Your task to perform on an android device: Go to eBay Image 0: 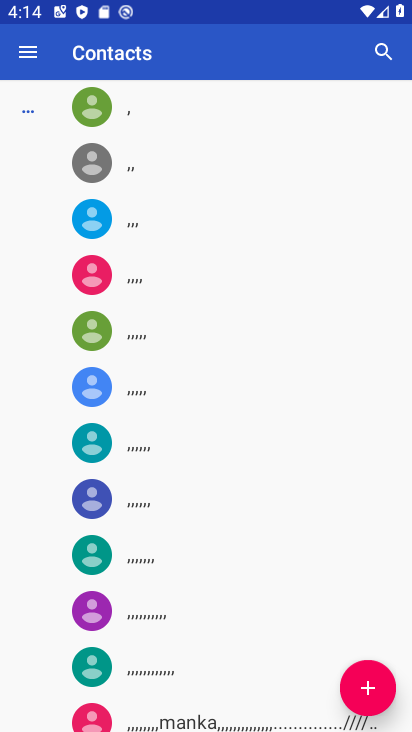
Step 0: press back button
Your task to perform on an android device: Go to eBay Image 1: 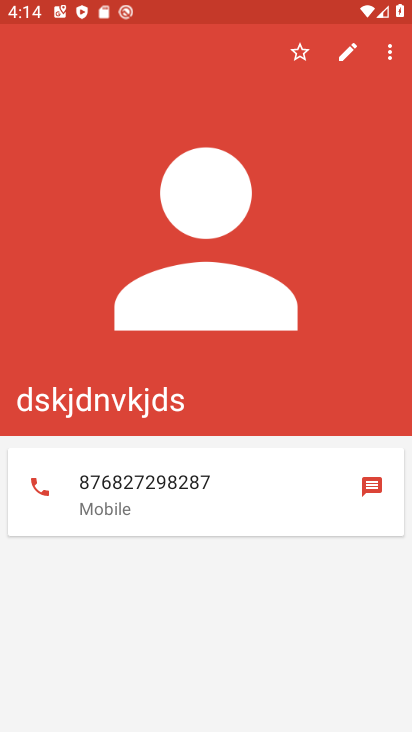
Step 1: press home button
Your task to perform on an android device: Go to eBay Image 2: 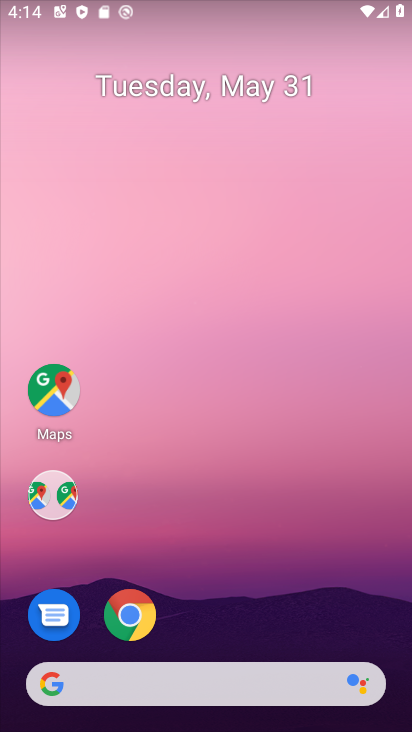
Step 2: drag from (304, 708) to (259, 248)
Your task to perform on an android device: Go to eBay Image 3: 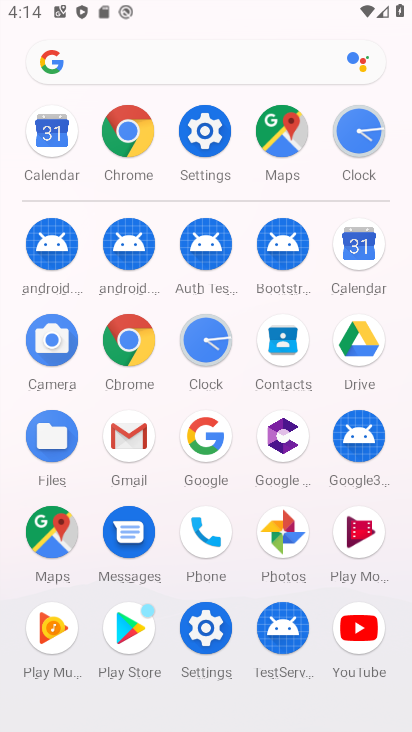
Step 3: click (134, 126)
Your task to perform on an android device: Go to eBay Image 4: 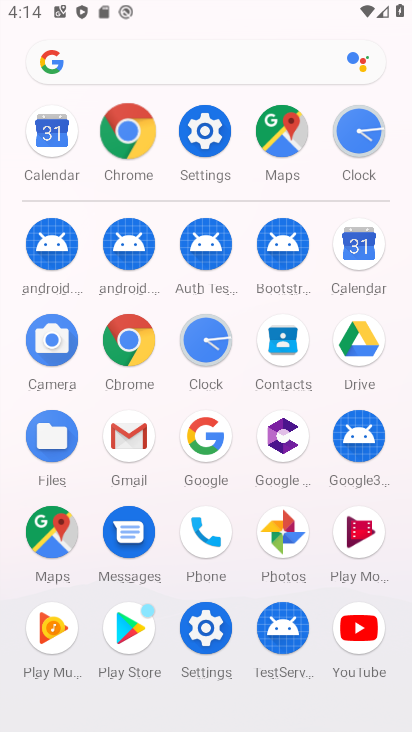
Step 4: click (128, 138)
Your task to perform on an android device: Go to eBay Image 5: 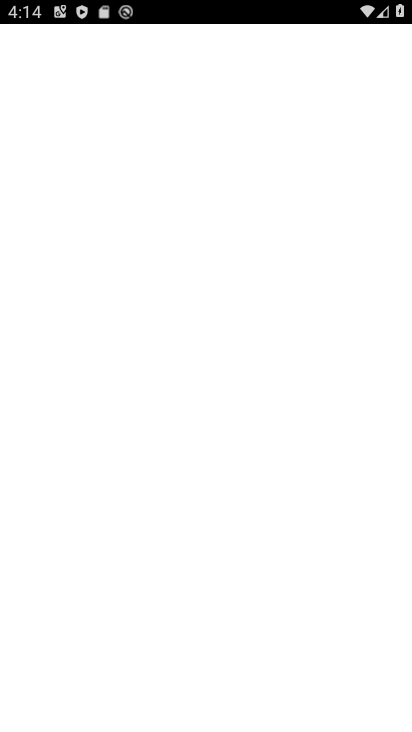
Step 5: click (128, 138)
Your task to perform on an android device: Go to eBay Image 6: 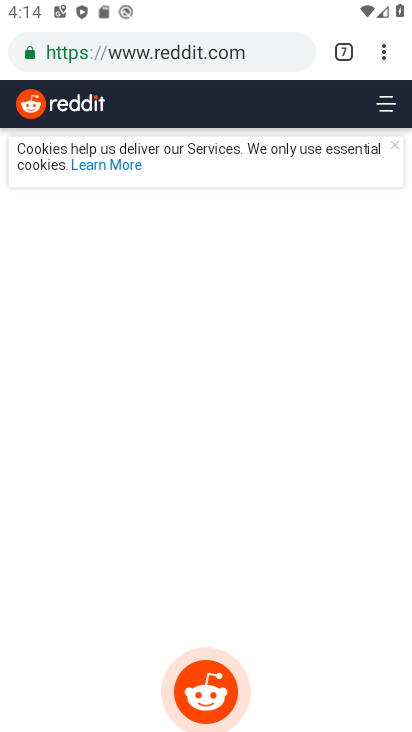
Step 6: drag from (380, 53) to (196, 103)
Your task to perform on an android device: Go to eBay Image 7: 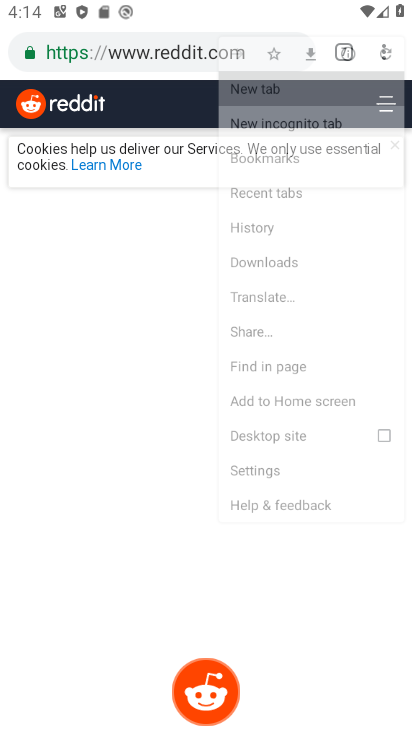
Step 7: click (196, 103)
Your task to perform on an android device: Go to eBay Image 8: 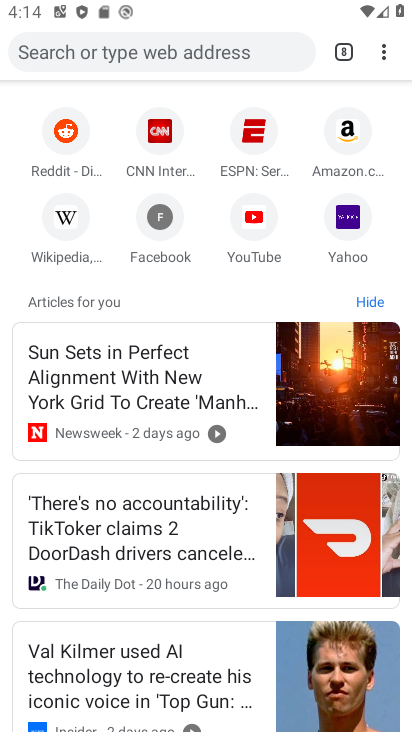
Step 8: drag from (386, 52) to (189, 106)
Your task to perform on an android device: Go to eBay Image 9: 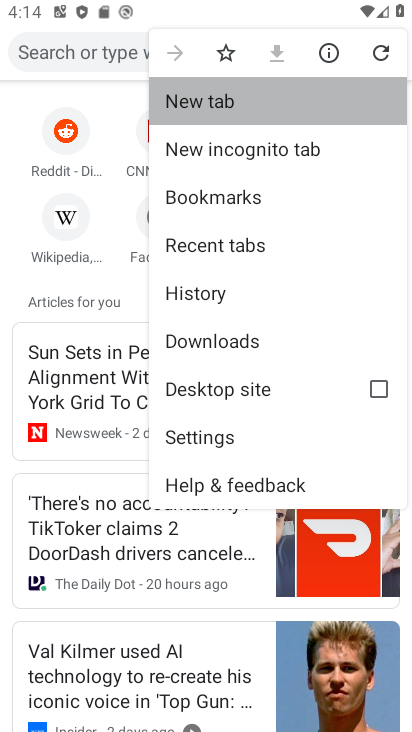
Step 9: click (192, 102)
Your task to perform on an android device: Go to eBay Image 10: 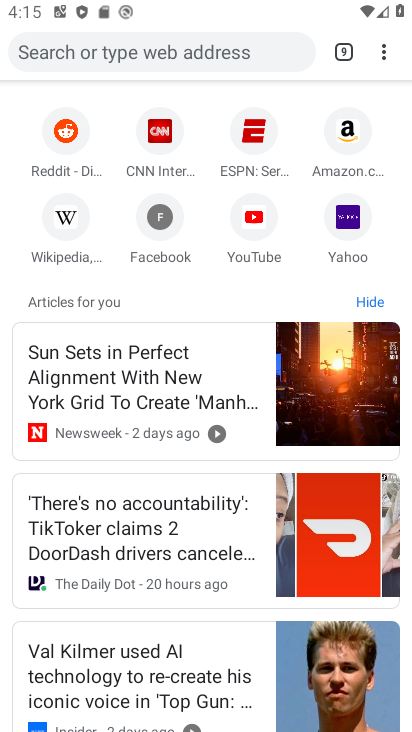
Step 10: click (70, 63)
Your task to perform on an android device: Go to eBay Image 11: 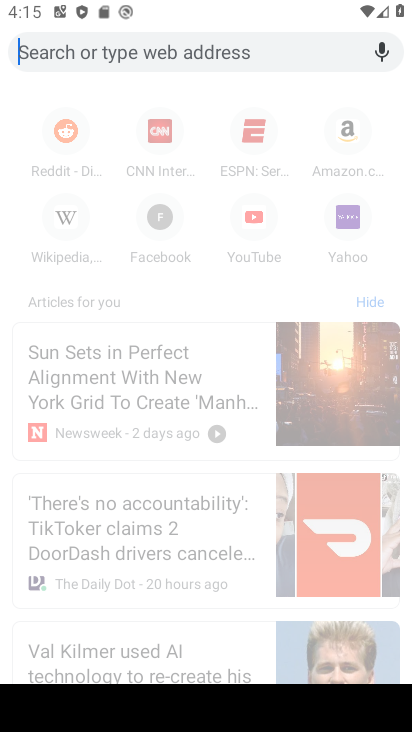
Step 11: type "ebay.com"
Your task to perform on an android device: Go to eBay Image 12: 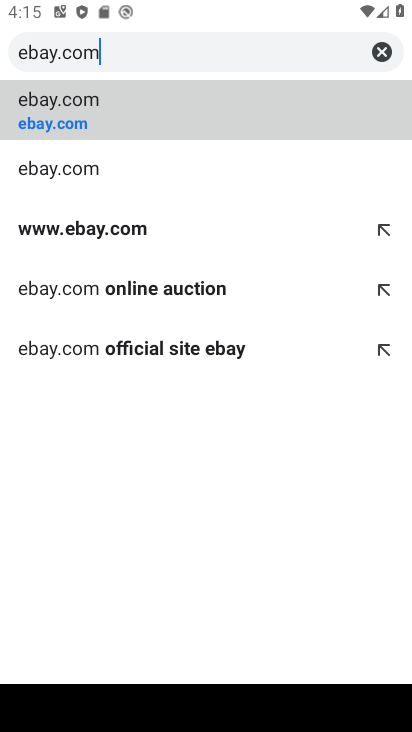
Step 12: click (39, 118)
Your task to perform on an android device: Go to eBay Image 13: 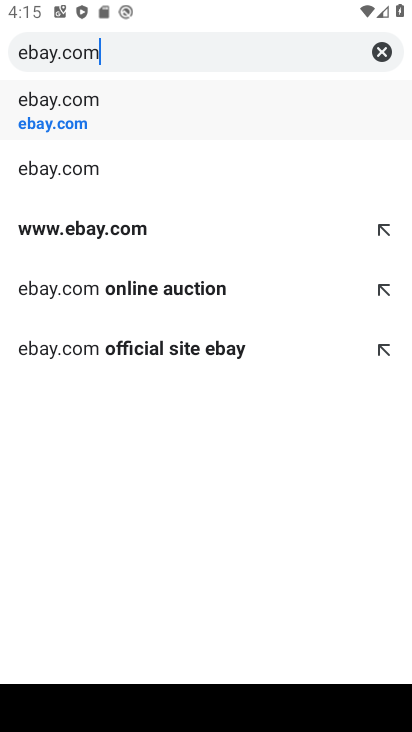
Step 13: click (41, 113)
Your task to perform on an android device: Go to eBay Image 14: 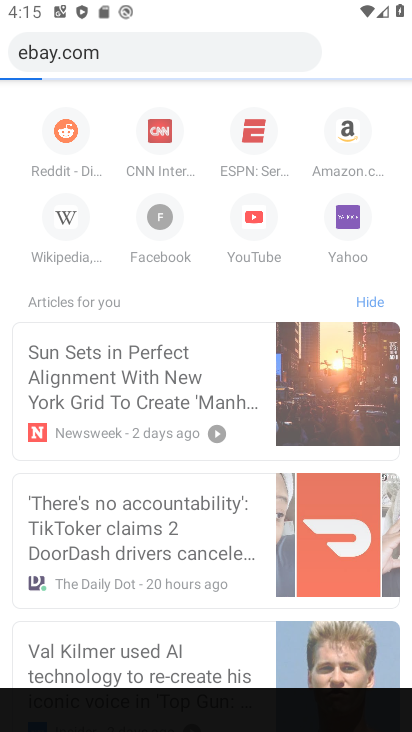
Step 14: click (43, 113)
Your task to perform on an android device: Go to eBay Image 15: 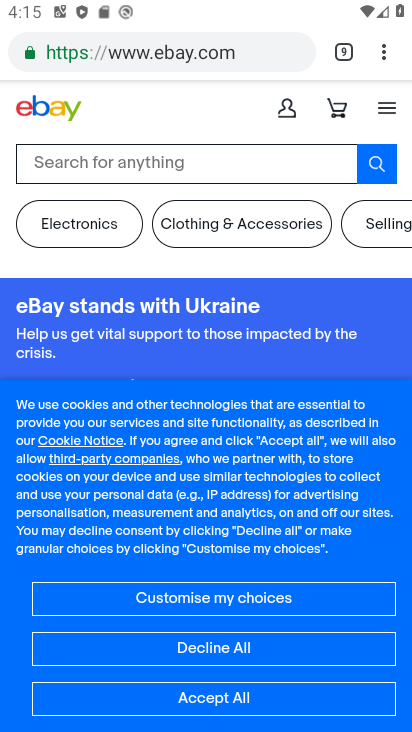
Step 15: task complete